Your task to perform on an android device: set an alarm Image 0: 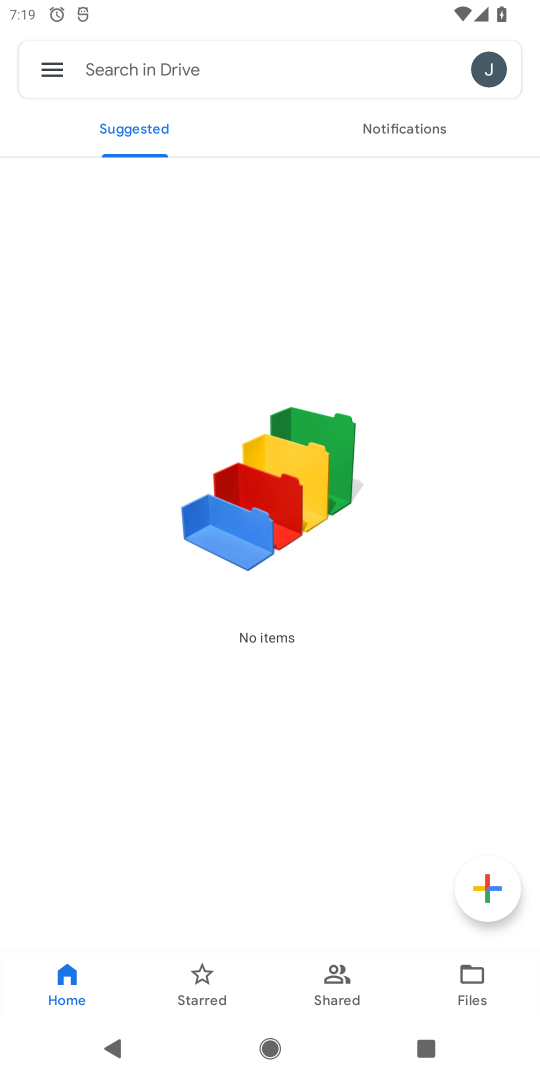
Step 0: press home button
Your task to perform on an android device: set an alarm Image 1: 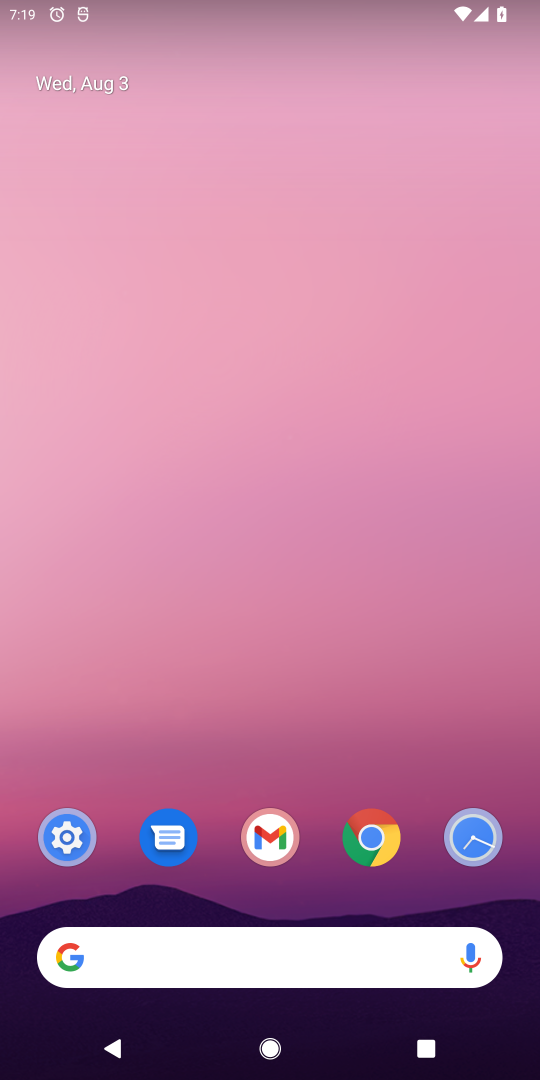
Step 1: drag from (311, 757) to (319, 93)
Your task to perform on an android device: set an alarm Image 2: 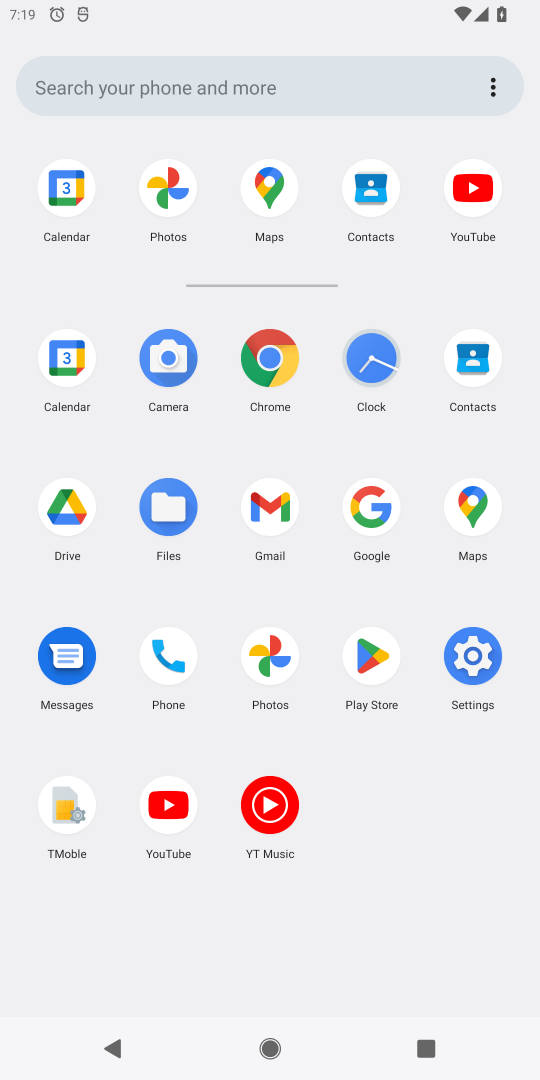
Step 2: click (370, 370)
Your task to perform on an android device: set an alarm Image 3: 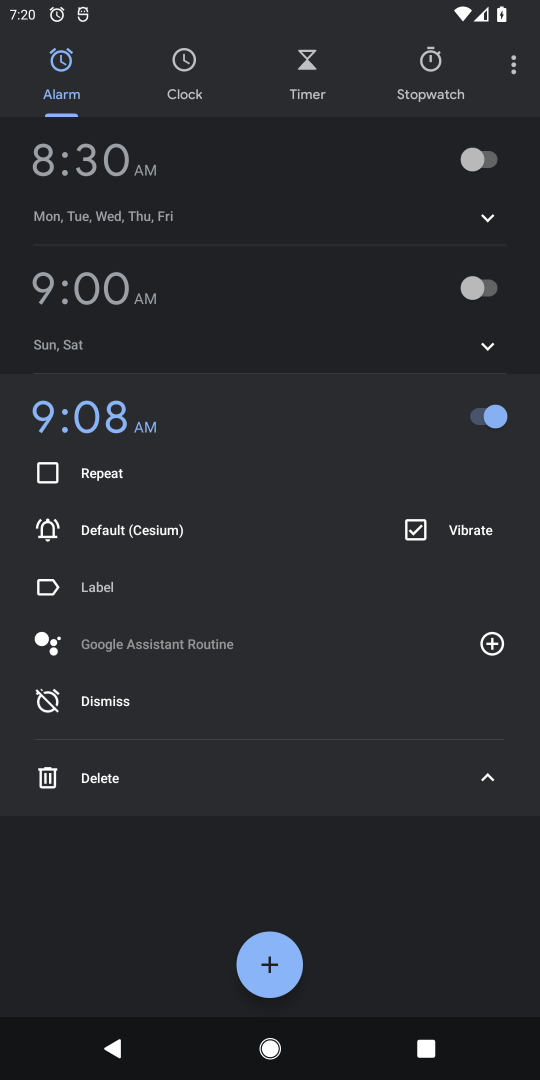
Step 3: click (494, 294)
Your task to perform on an android device: set an alarm Image 4: 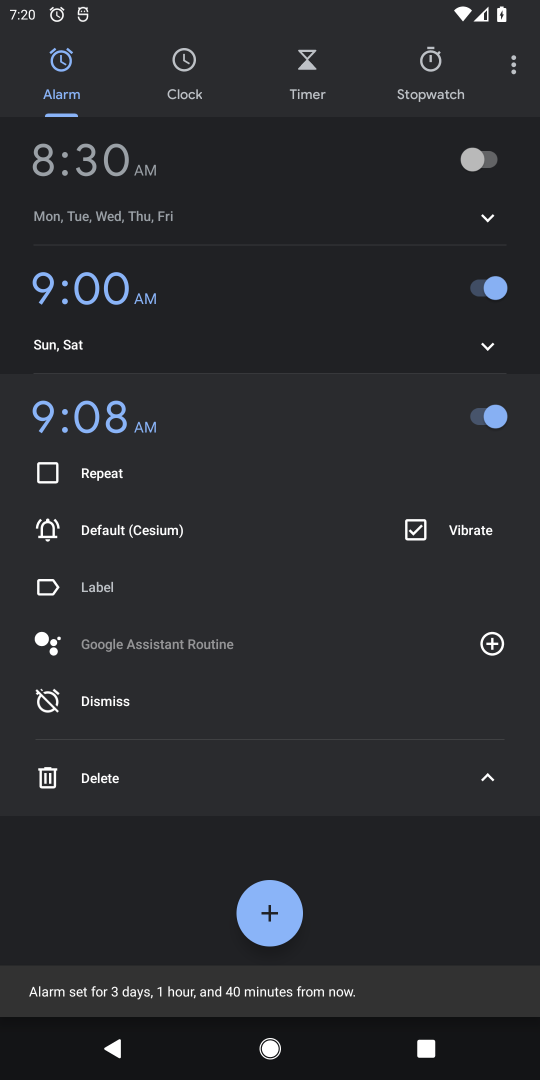
Step 4: task complete